Your task to perform on an android device: What's the news this evening? Image 0: 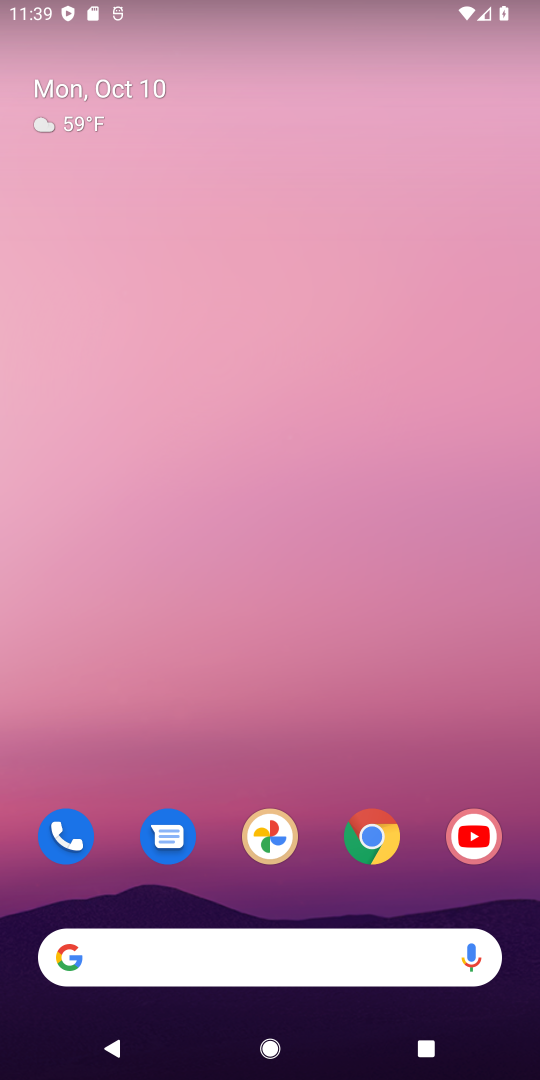
Step 0: click (383, 829)
Your task to perform on an android device: What's the news this evening? Image 1: 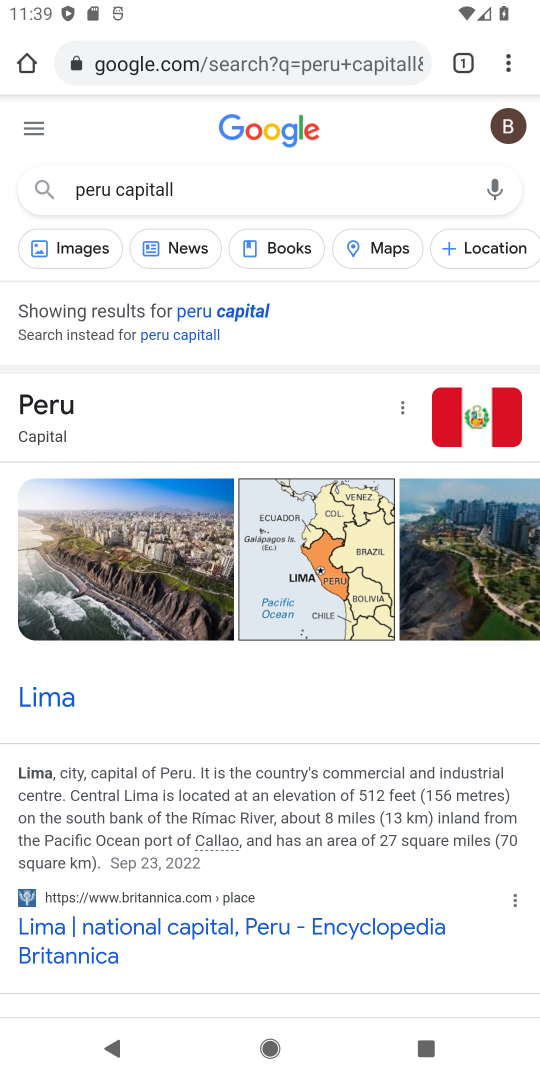
Step 1: click (283, 68)
Your task to perform on an android device: What's the news this evening? Image 2: 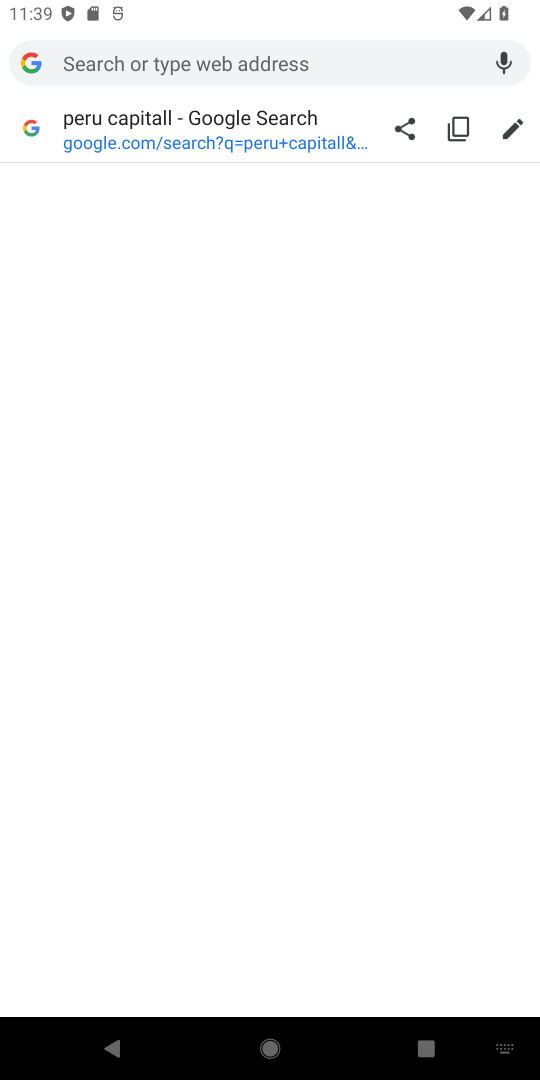
Step 2: type "news this evening"
Your task to perform on an android device: What's the news this evening? Image 3: 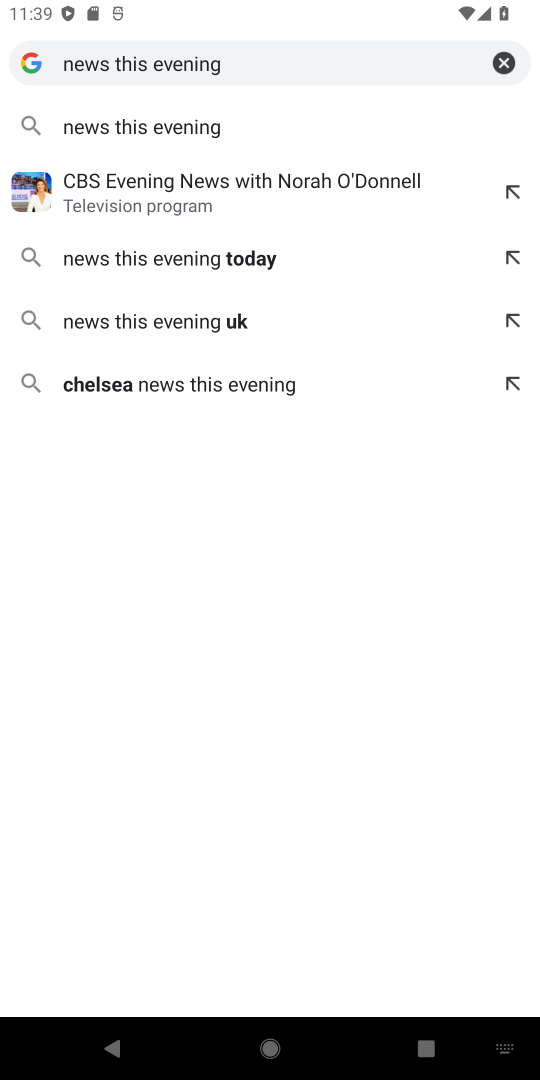
Step 3: click (158, 125)
Your task to perform on an android device: What's the news this evening? Image 4: 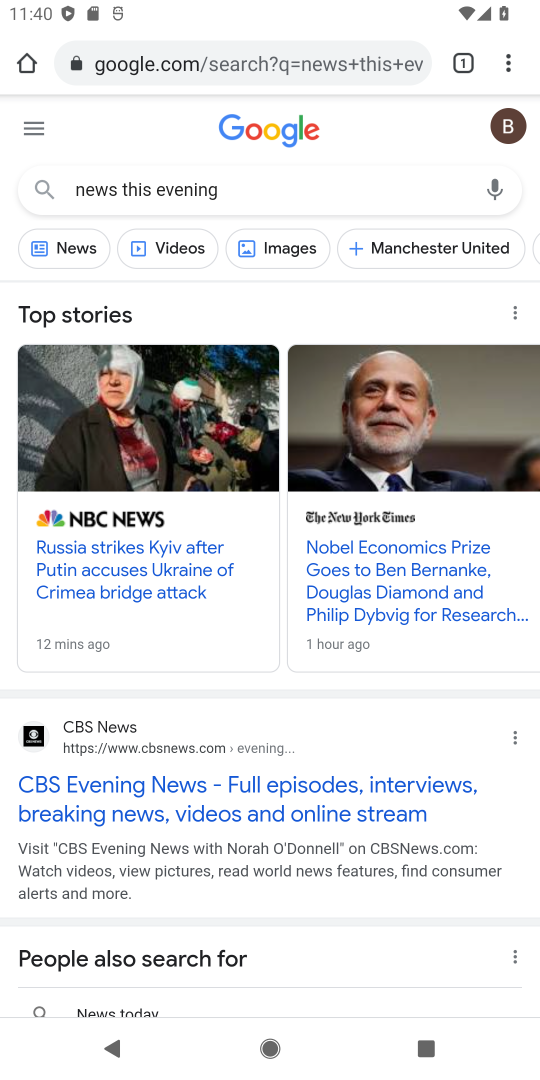
Step 4: task complete